Your task to perform on an android device: Check the news Image 0: 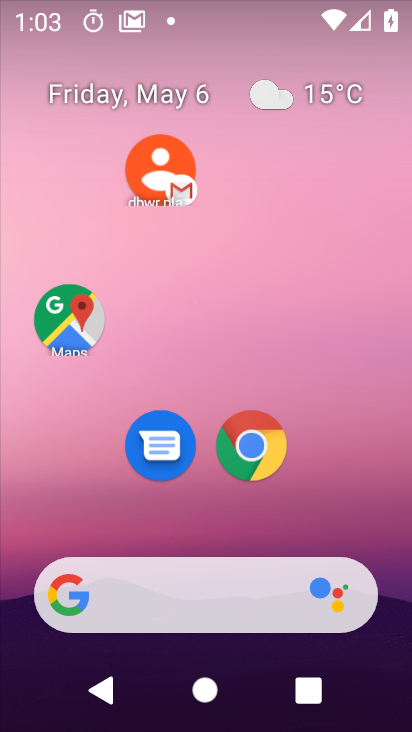
Step 0: click (335, 530)
Your task to perform on an android device: Check the news Image 1: 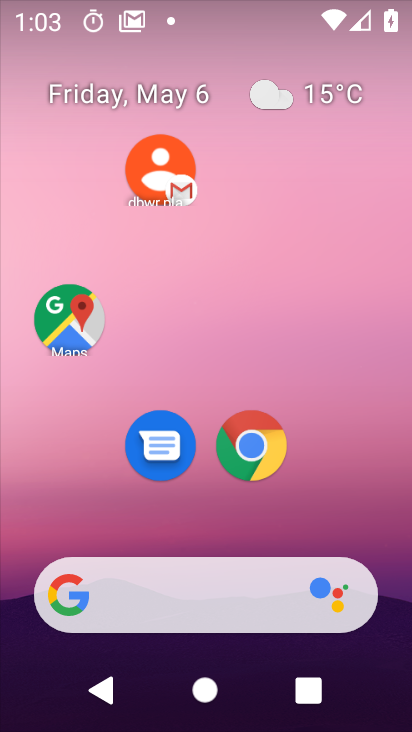
Step 1: task complete